Your task to perform on an android device: delete location history Image 0: 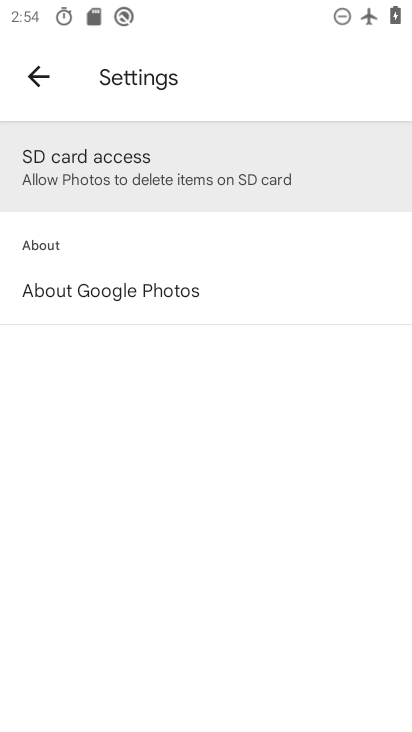
Step 0: drag from (273, 498) to (262, 166)
Your task to perform on an android device: delete location history Image 1: 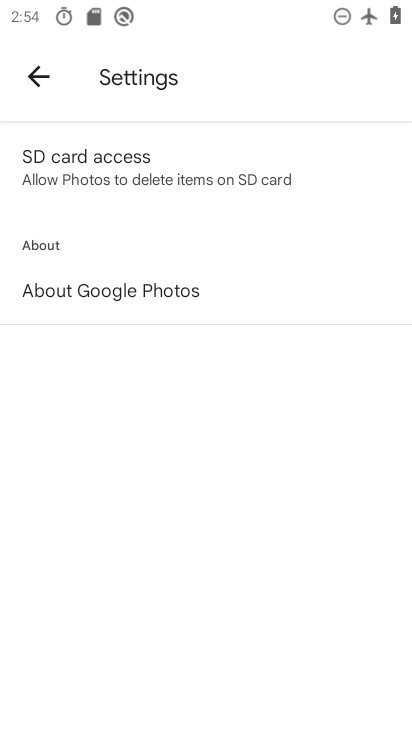
Step 1: drag from (236, 536) to (257, 278)
Your task to perform on an android device: delete location history Image 2: 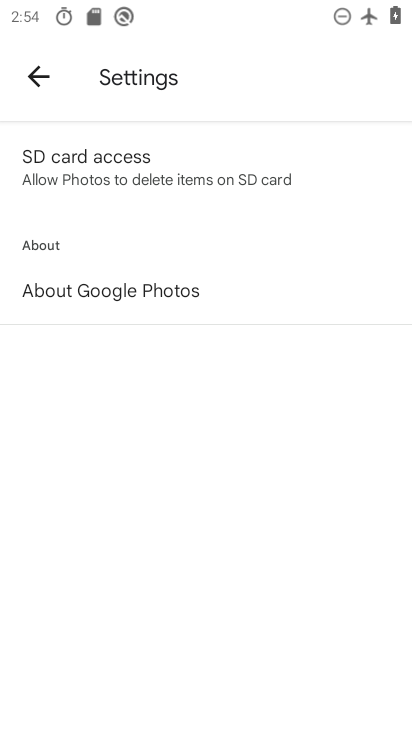
Step 2: press home button
Your task to perform on an android device: delete location history Image 3: 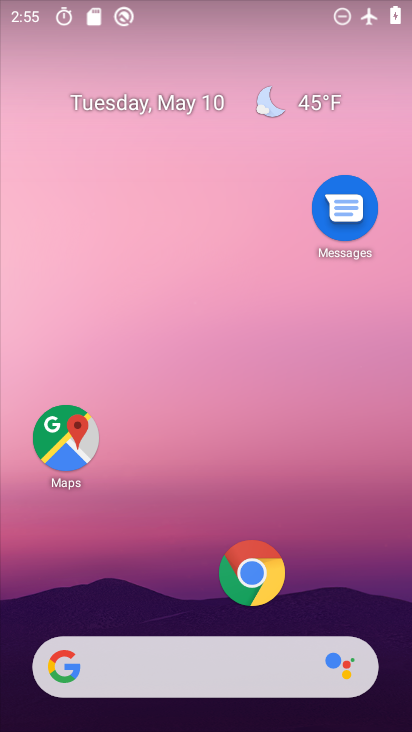
Step 3: drag from (179, 632) to (209, 320)
Your task to perform on an android device: delete location history Image 4: 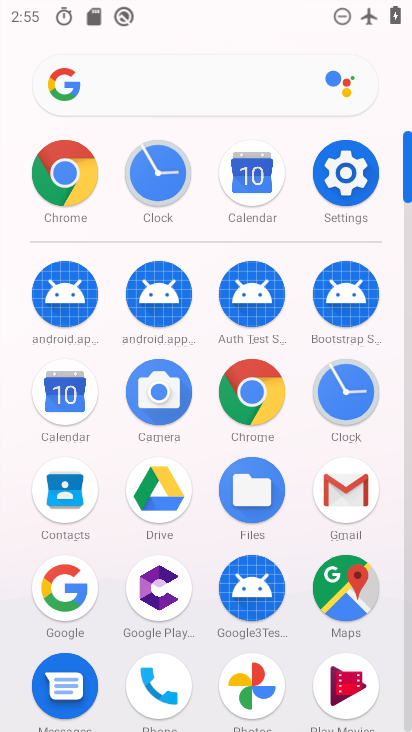
Step 4: drag from (216, 635) to (219, 292)
Your task to perform on an android device: delete location history Image 5: 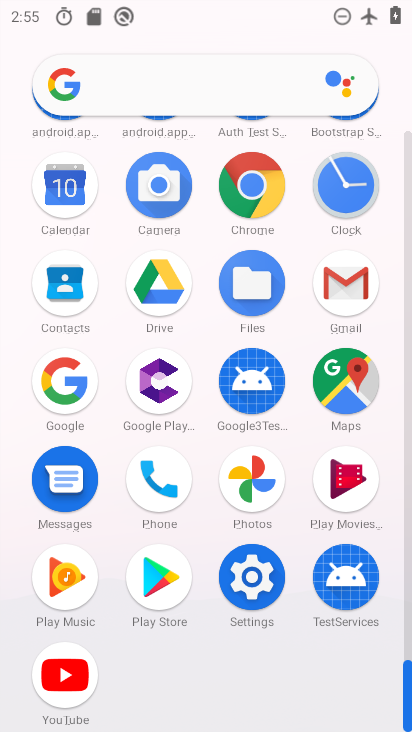
Step 5: click (234, 580)
Your task to perform on an android device: delete location history Image 6: 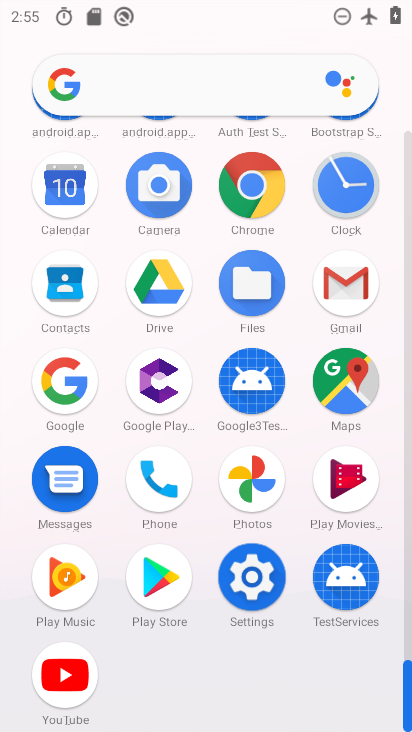
Step 6: click (234, 580)
Your task to perform on an android device: delete location history Image 7: 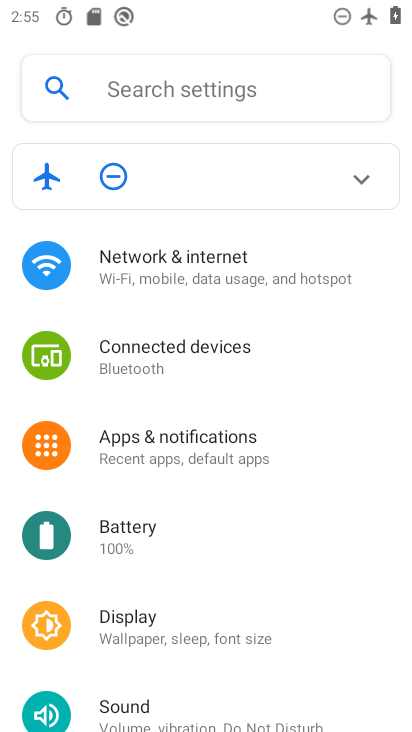
Step 7: drag from (210, 609) to (302, 176)
Your task to perform on an android device: delete location history Image 8: 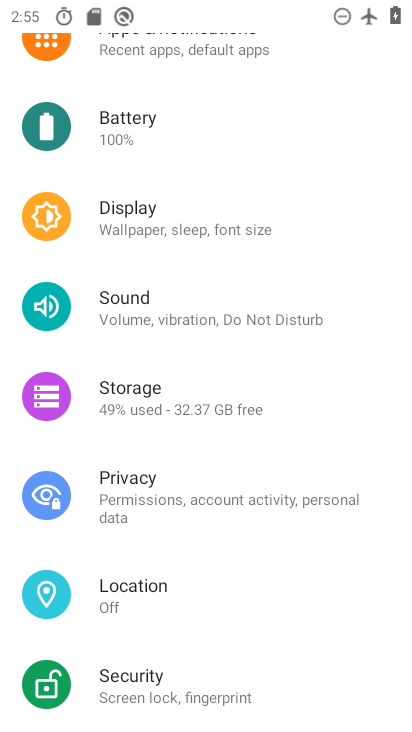
Step 8: drag from (209, 639) to (208, 429)
Your task to perform on an android device: delete location history Image 9: 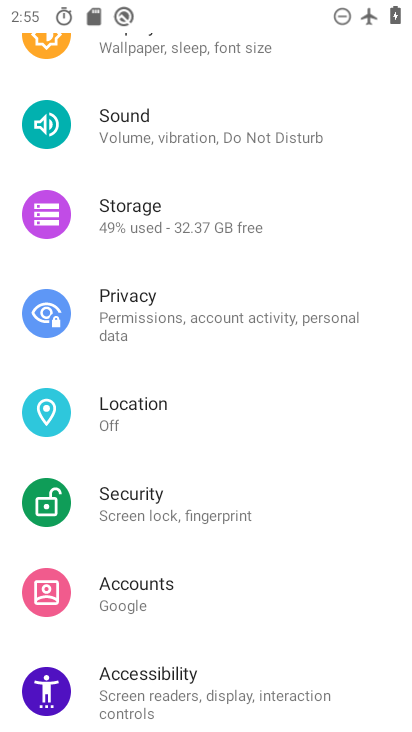
Step 9: click (122, 420)
Your task to perform on an android device: delete location history Image 10: 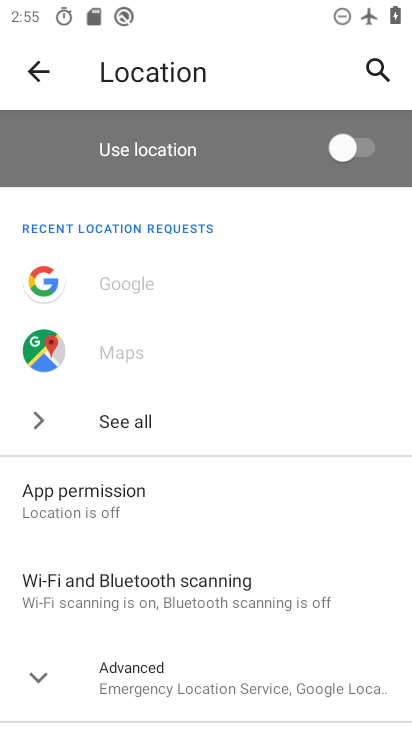
Step 10: drag from (228, 562) to (294, 140)
Your task to perform on an android device: delete location history Image 11: 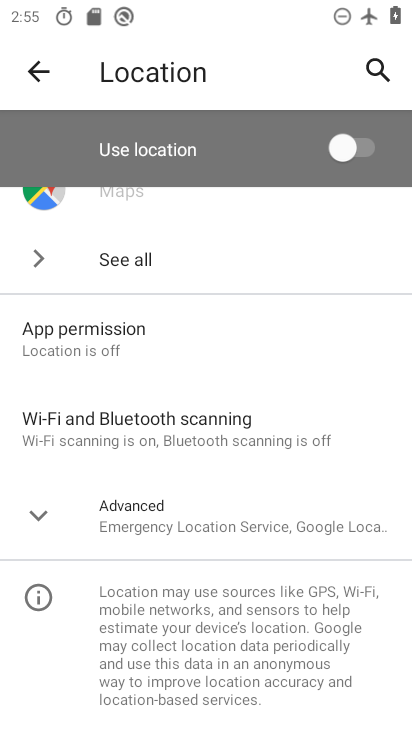
Step 11: click (172, 495)
Your task to perform on an android device: delete location history Image 12: 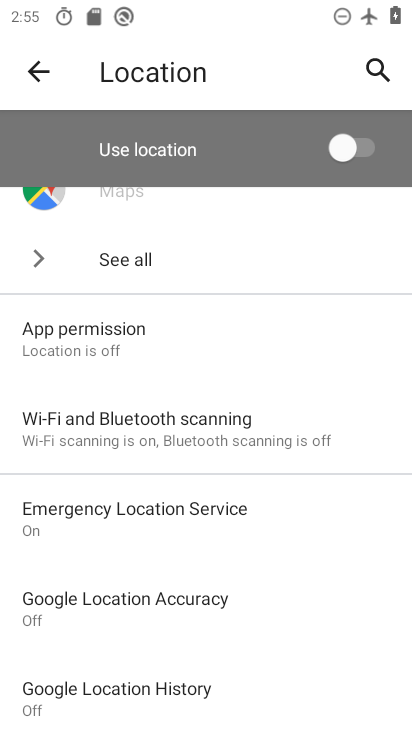
Step 12: drag from (154, 658) to (221, 347)
Your task to perform on an android device: delete location history Image 13: 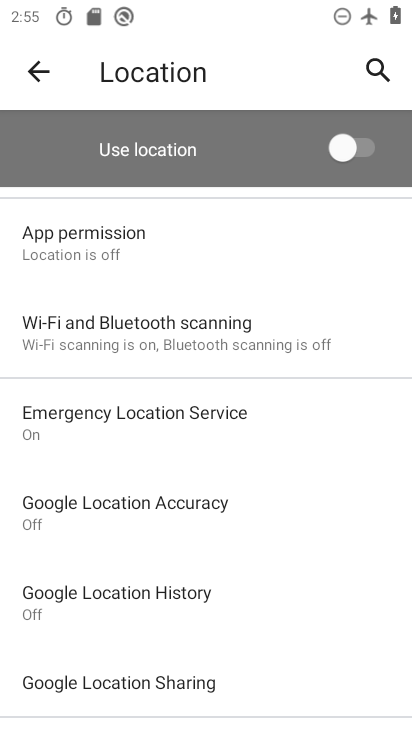
Step 13: click (171, 592)
Your task to perform on an android device: delete location history Image 14: 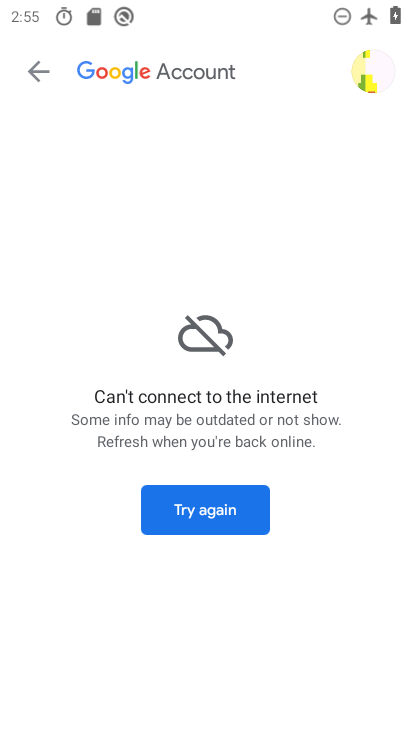
Step 14: task complete